Your task to perform on an android device: Open network settings Image 0: 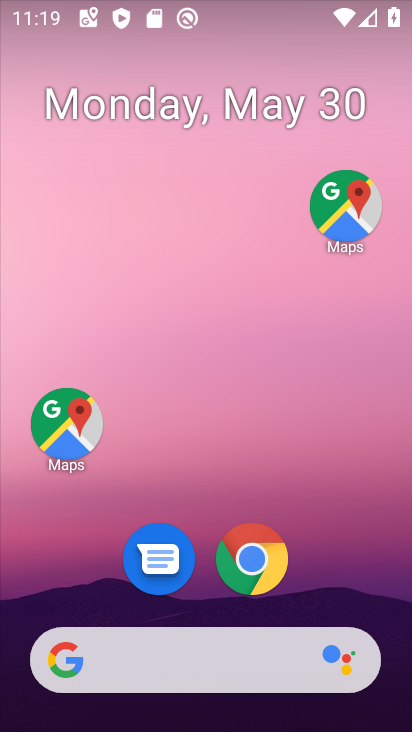
Step 0: drag from (337, 559) to (345, 177)
Your task to perform on an android device: Open network settings Image 1: 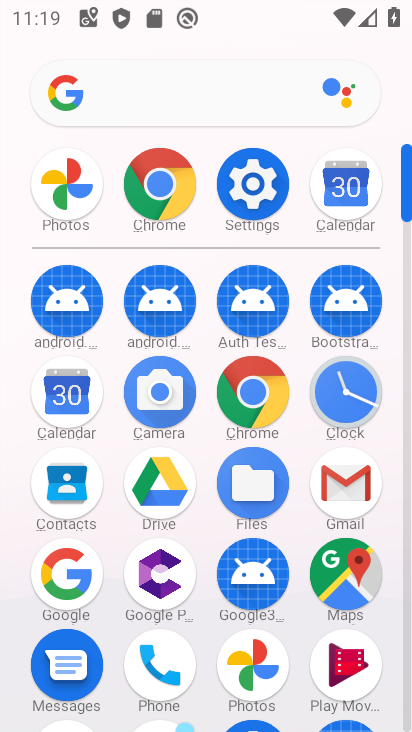
Step 1: click (251, 182)
Your task to perform on an android device: Open network settings Image 2: 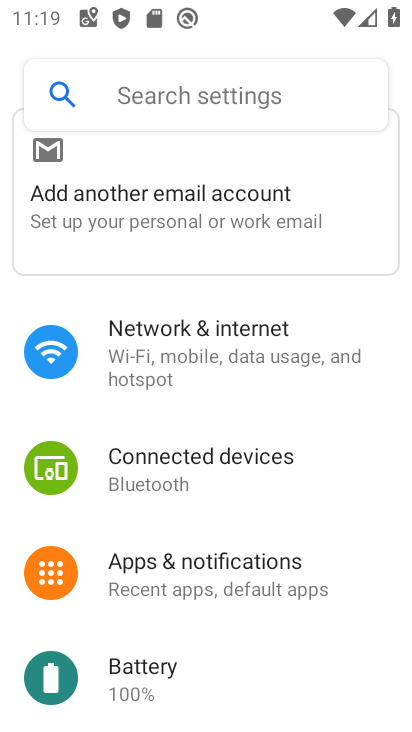
Step 2: click (192, 347)
Your task to perform on an android device: Open network settings Image 3: 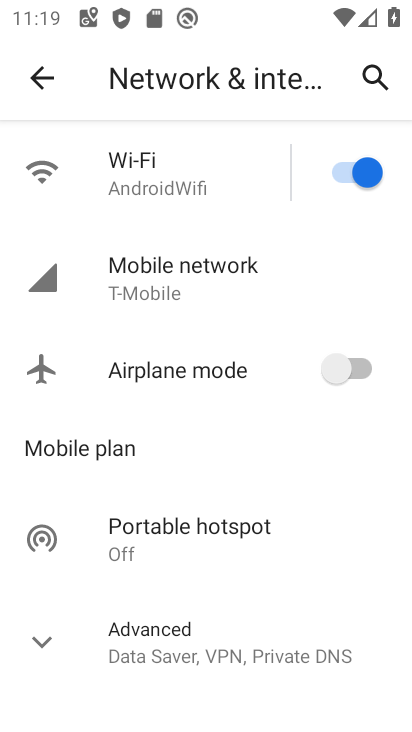
Step 3: task complete